Your task to perform on an android device: Is it going to rain this weekend? Image 0: 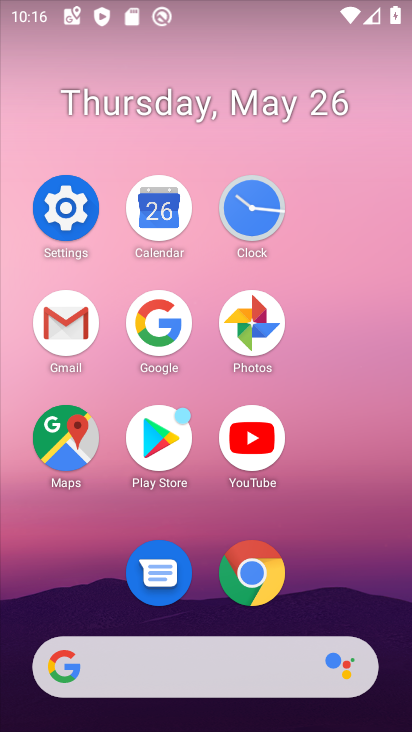
Step 0: click (152, 336)
Your task to perform on an android device: Is it going to rain this weekend? Image 1: 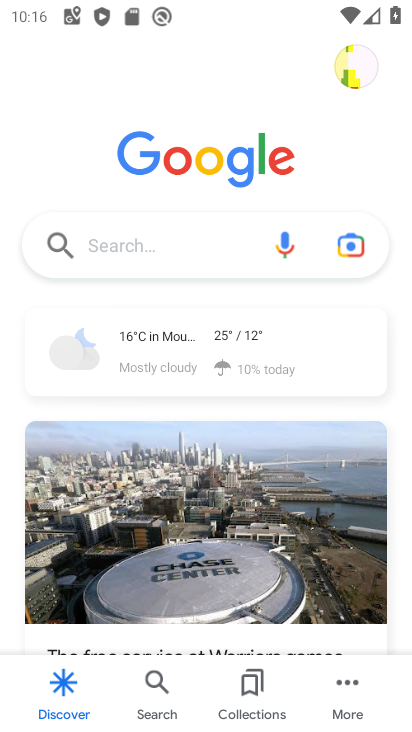
Step 1: click (141, 256)
Your task to perform on an android device: Is it going to rain this weekend? Image 2: 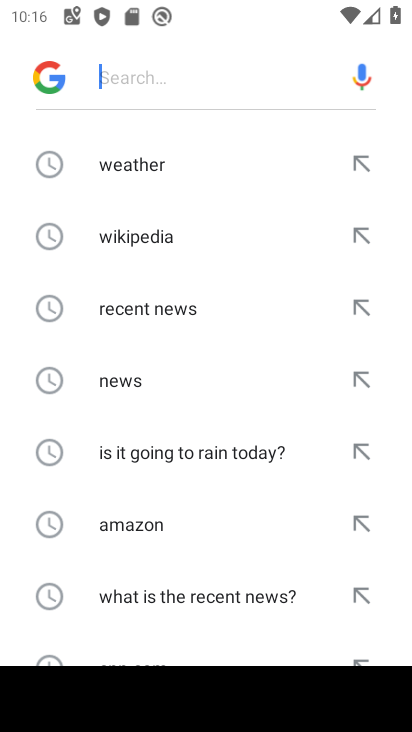
Step 2: click (107, 172)
Your task to perform on an android device: Is it going to rain this weekend? Image 3: 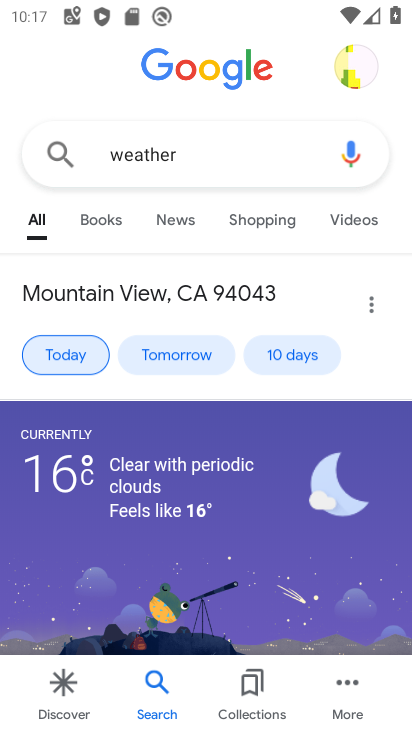
Step 3: task complete